Your task to perform on an android device: turn off priority inbox in the gmail app Image 0: 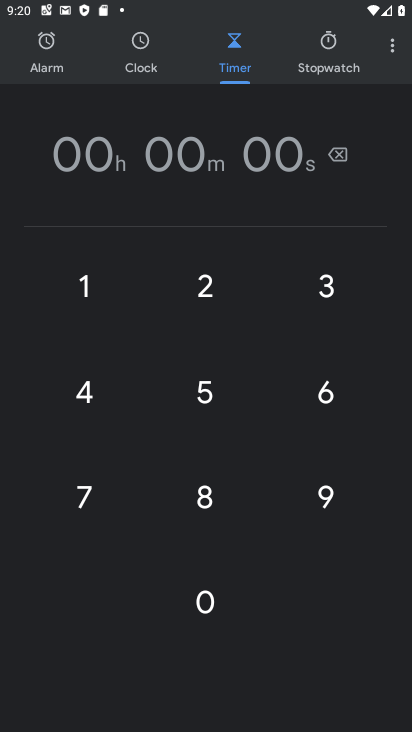
Step 0: press home button
Your task to perform on an android device: turn off priority inbox in the gmail app Image 1: 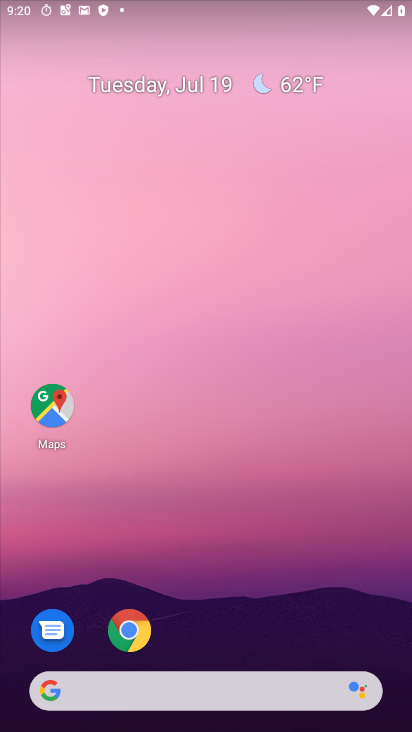
Step 1: drag from (5, 706) to (357, 216)
Your task to perform on an android device: turn off priority inbox in the gmail app Image 2: 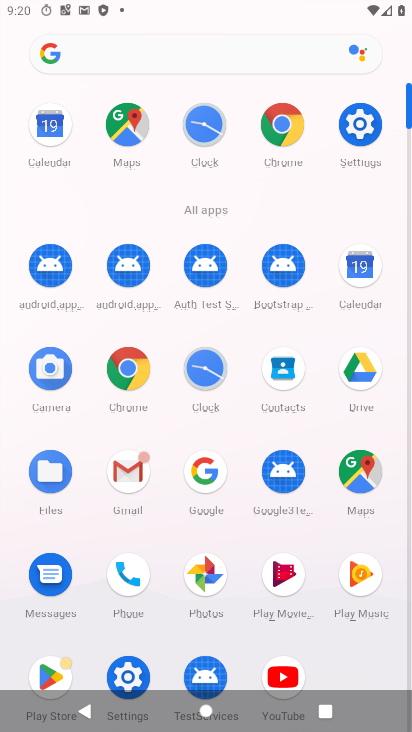
Step 2: click (131, 474)
Your task to perform on an android device: turn off priority inbox in the gmail app Image 3: 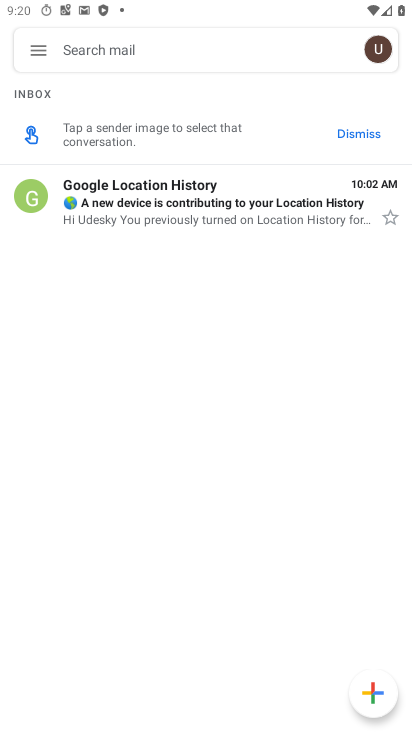
Step 3: click (30, 43)
Your task to perform on an android device: turn off priority inbox in the gmail app Image 4: 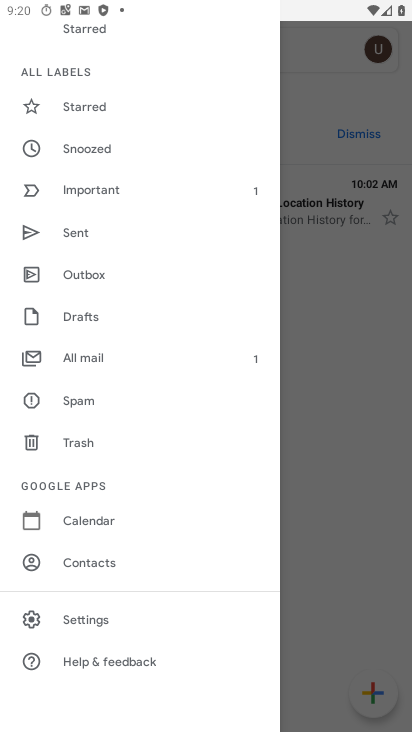
Step 4: click (73, 614)
Your task to perform on an android device: turn off priority inbox in the gmail app Image 5: 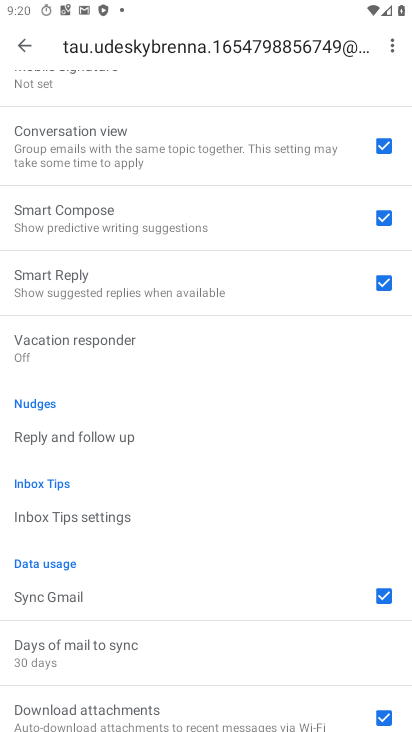
Step 5: drag from (224, 124) to (196, 482)
Your task to perform on an android device: turn off priority inbox in the gmail app Image 6: 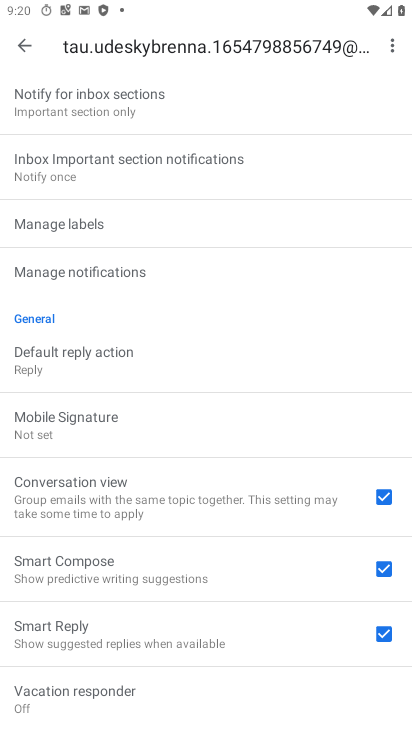
Step 6: drag from (189, 68) to (220, 698)
Your task to perform on an android device: turn off priority inbox in the gmail app Image 7: 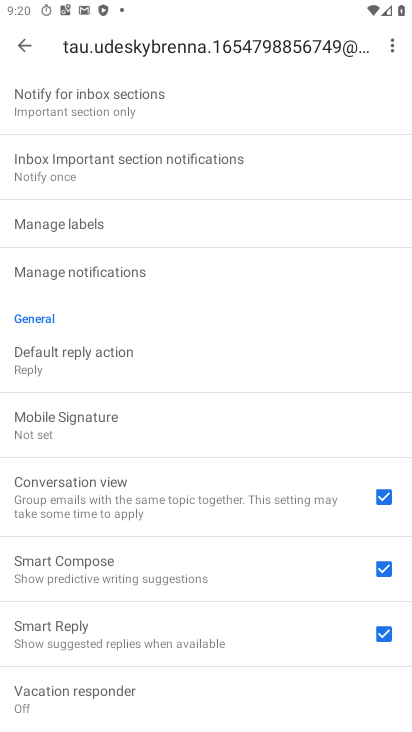
Step 7: drag from (148, 98) to (180, 710)
Your task to perform on an android device: turn off priority inbox in the gmail app Image 8: 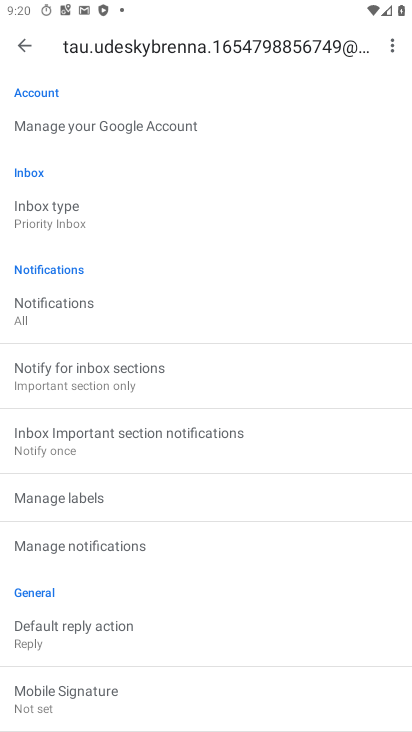
Step 8: click (64, 215)
Your task to perform on an android device: turn off priority inbox in the gmail app Image 9: 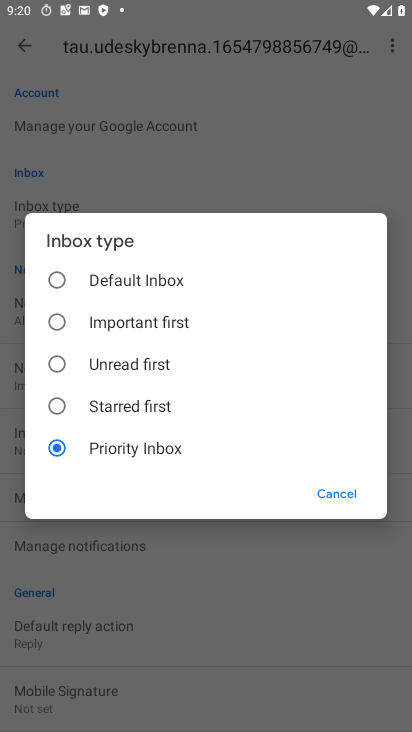
Step 9: click (56, 384)
Your task to perform on an android device: turn off priority inbox in the gmail app Image 10: 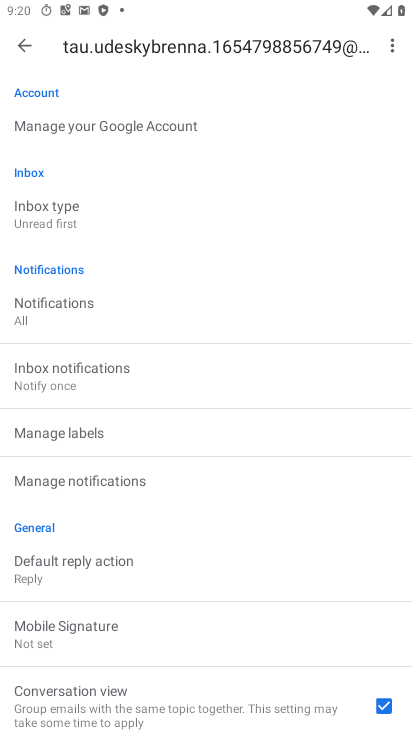
Step 10: task complete